Your task to perform on an android device: turn on priority inbox in the gmail app Image 0: 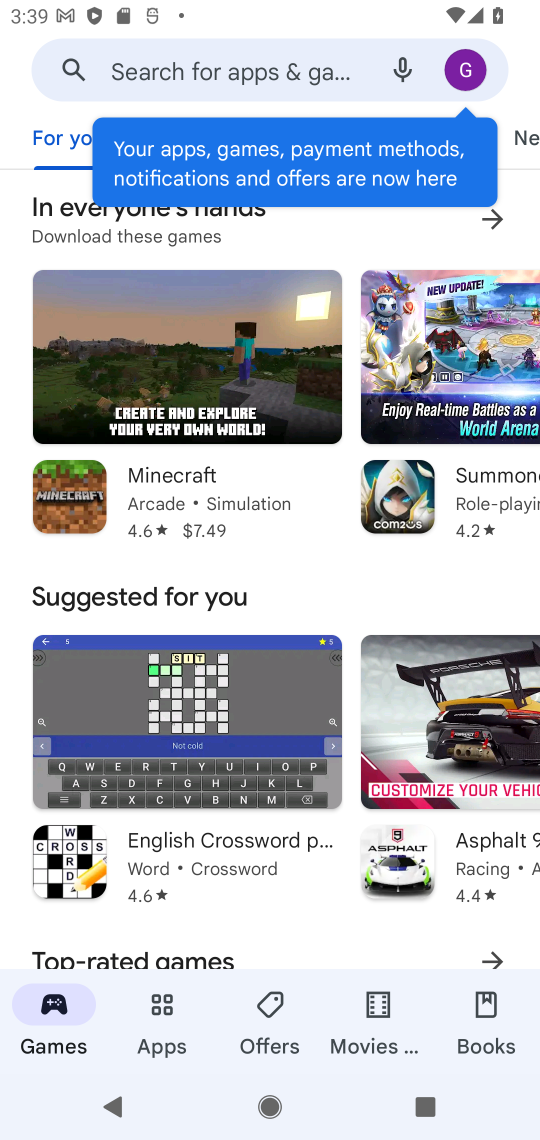
Step 0: press home button
Your task to perform on an android device: turn on priority inbox in the gmail app Image 1: 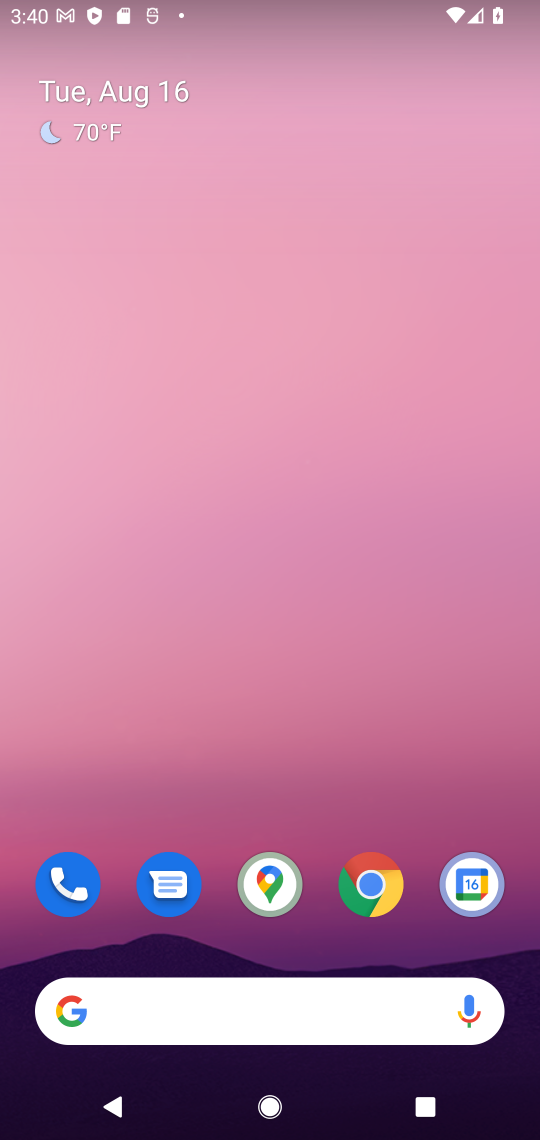
Step 1: drag from (264, 809) to (304, 41)
Your task to perform on an android device: turn on priority inbox in the gmail app Image 2: 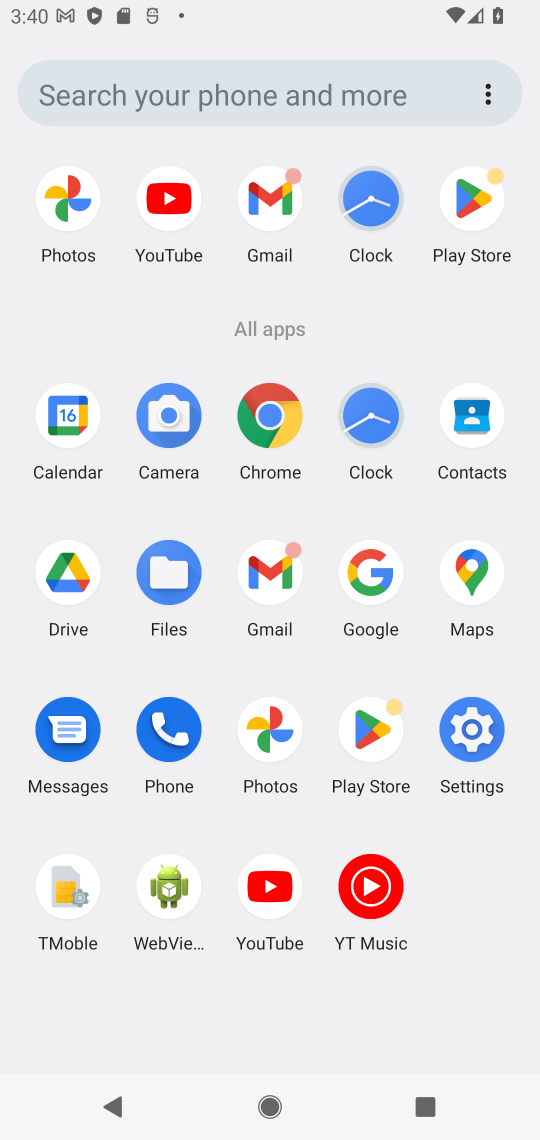
Step 2: click (258, 214)
Your task to perform on an android device: turn on priority inbox in the gmail app Image 3: 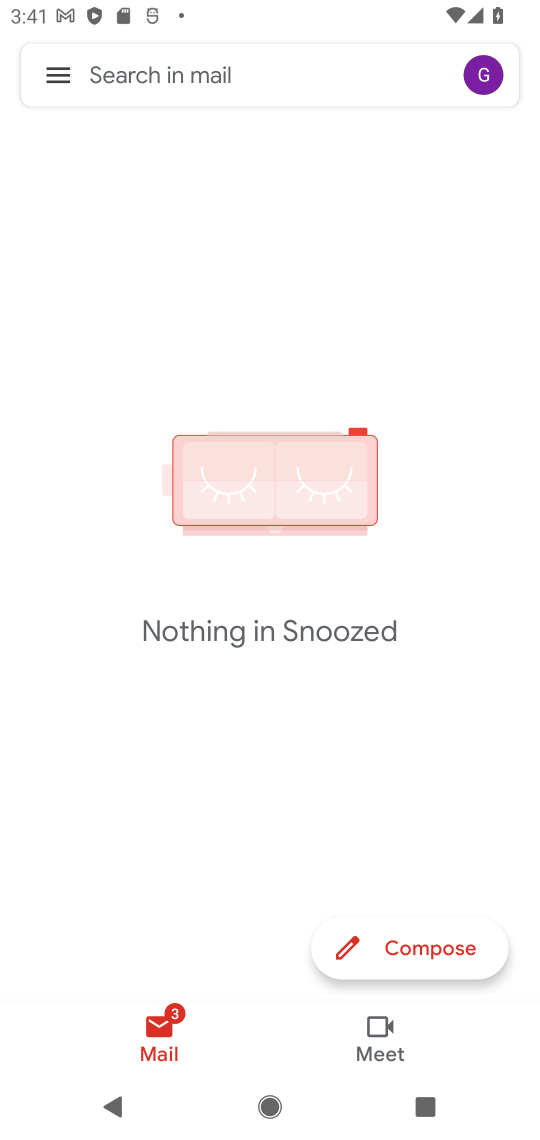
Step 3: click (65, 66)
Your task to perform on an android device: turn on priority inbox in the gmail app Image 4: 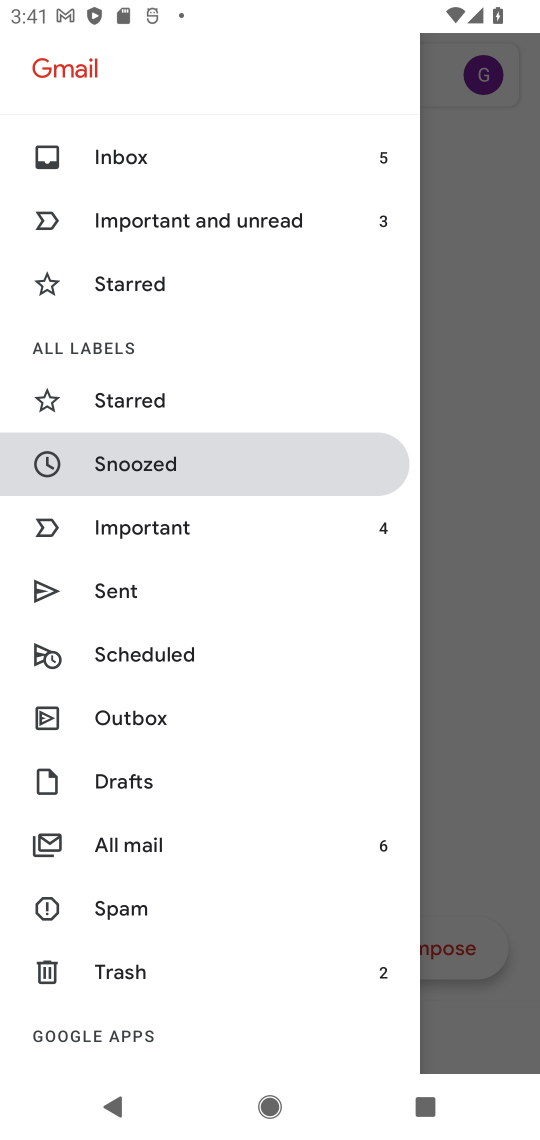
Step 4: drag from (188, 981) to (175, 223)
Your task to perform on an android device: turn on priority inbox in the gmail app Image 5: 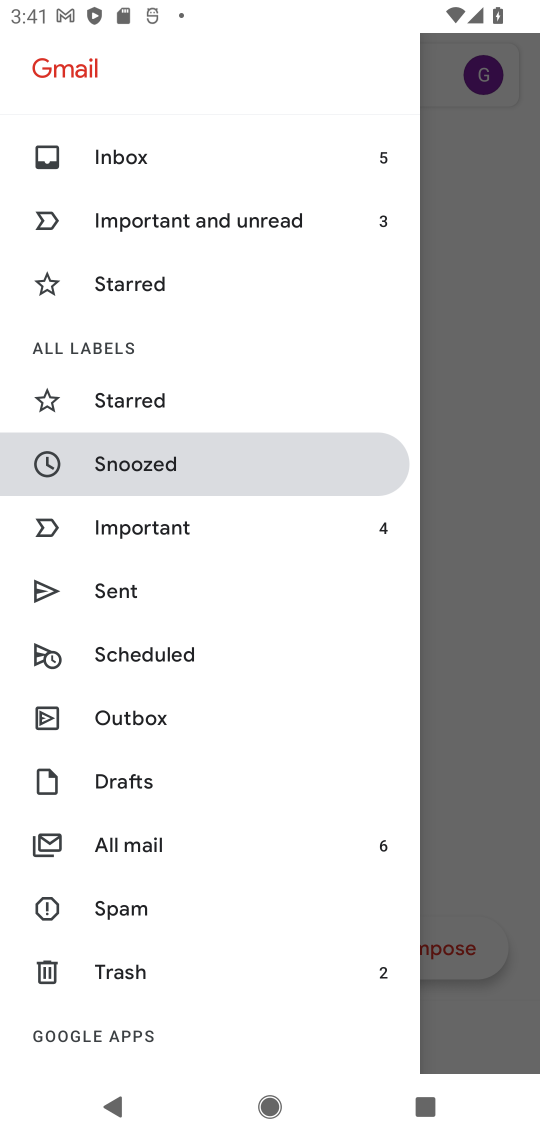
Step 5: drag from (209, 854) to (214, 364)
Your task to perform on an android device: turn on priority inbox in the gmail app Image 6: 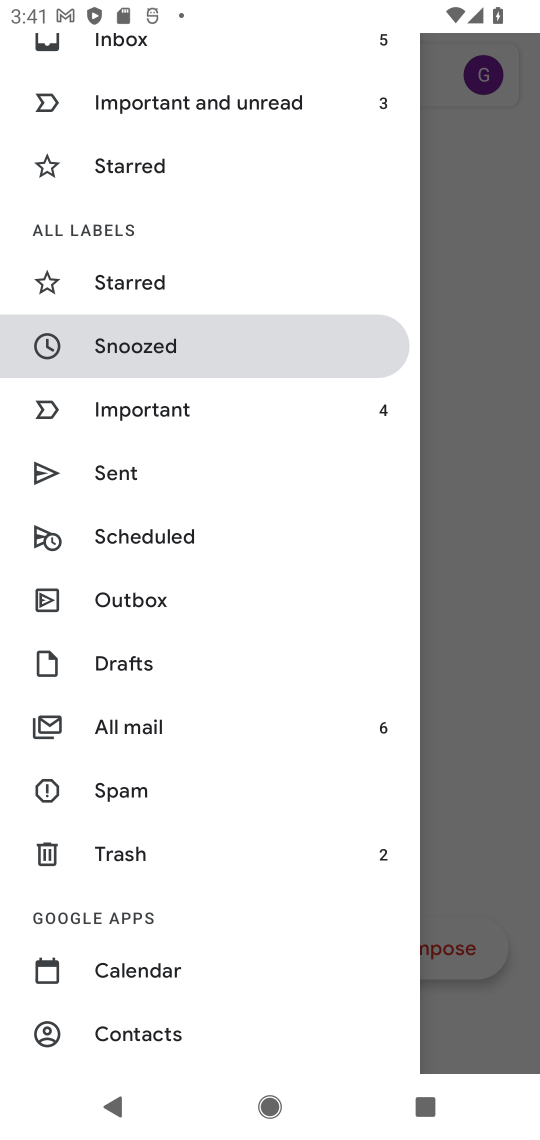
Step 6: drag from (170, 779) to (244, 158)
Your task to perform on an android device: turn on priority inbox in the gmail app Image 7: 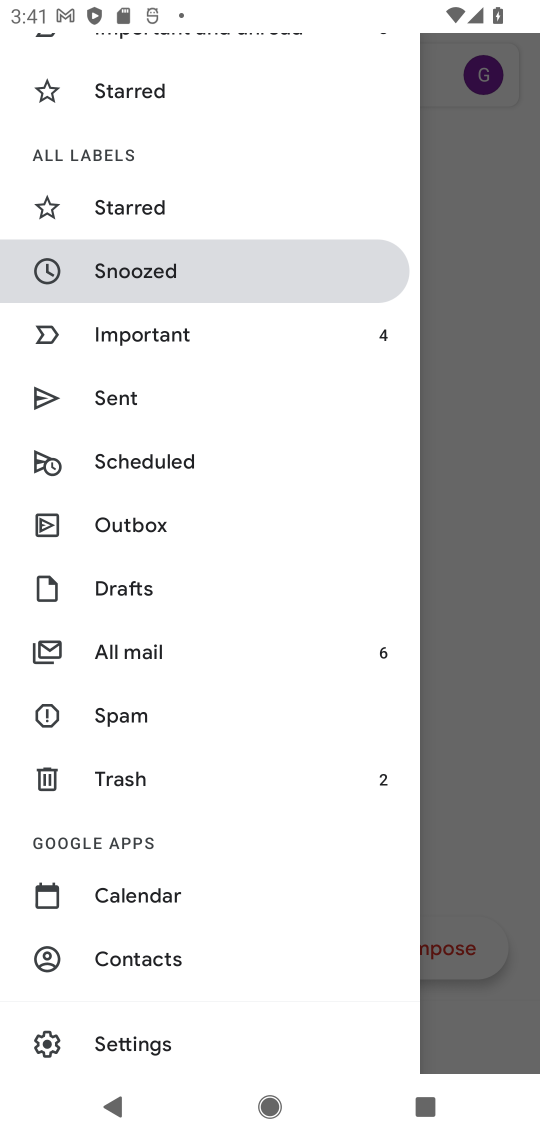
Step 7: click (149, 1027)
Your task to perform on an android device: turn on priority inbox in the gmail app Image 8: 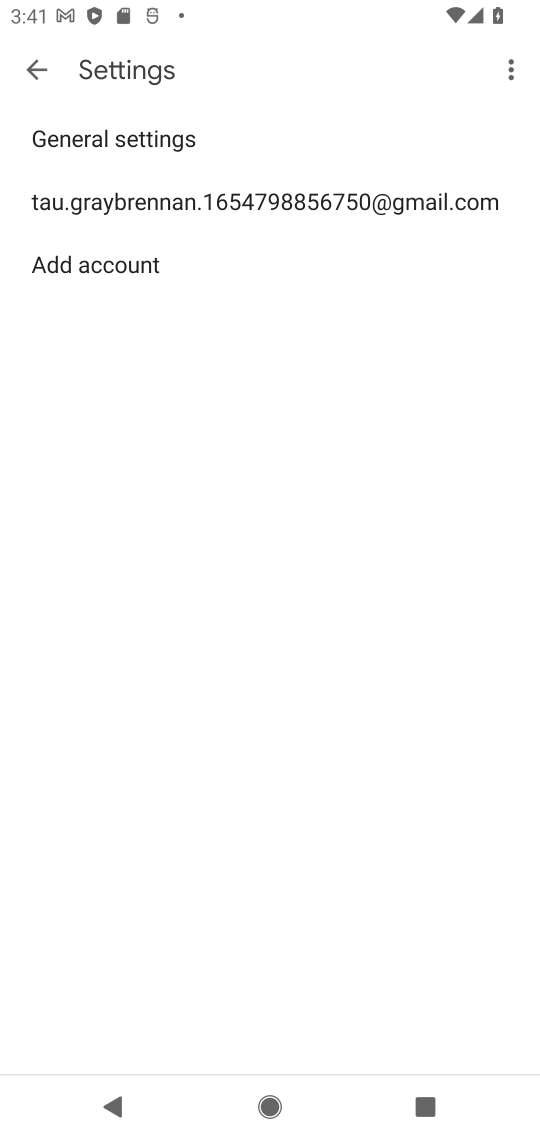
Step 8: click (255, 208)
Your task to perform on an android device: turn on priority inbox in the gmail app Image 9: 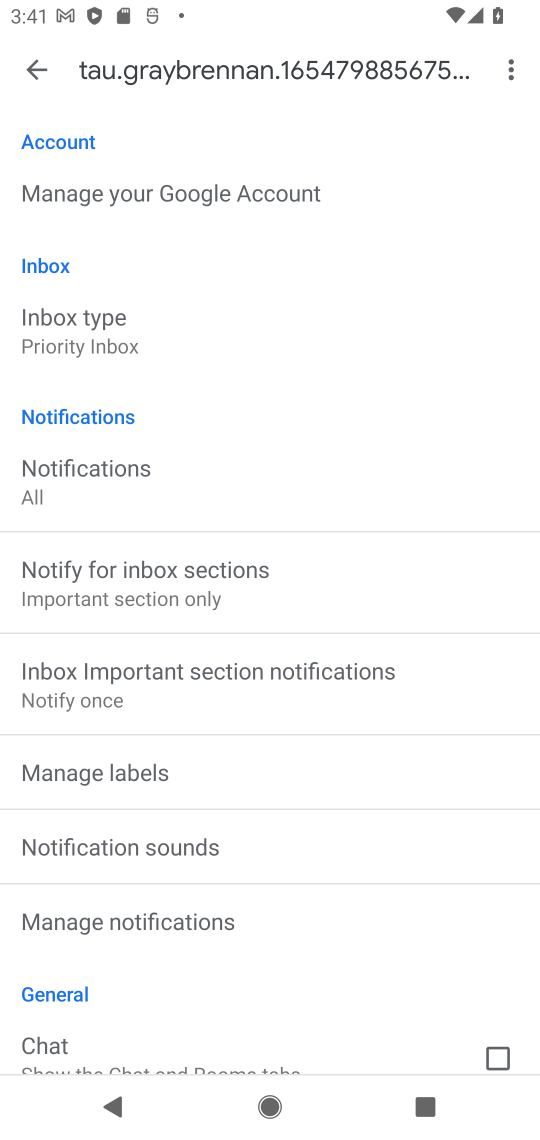
Step 9: task complete